Your task to perform on an android device: change the clock display to analog Image 0: 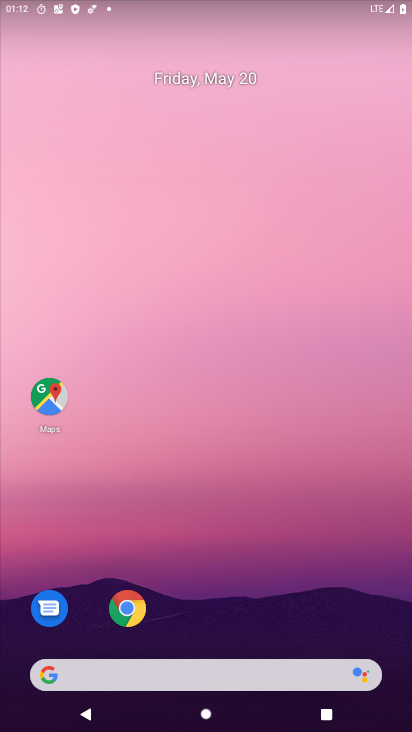
Step 0: drag from (309, 604) to (312, 209)
Your task to perform on an android device: change the clock display to analog Image 1: 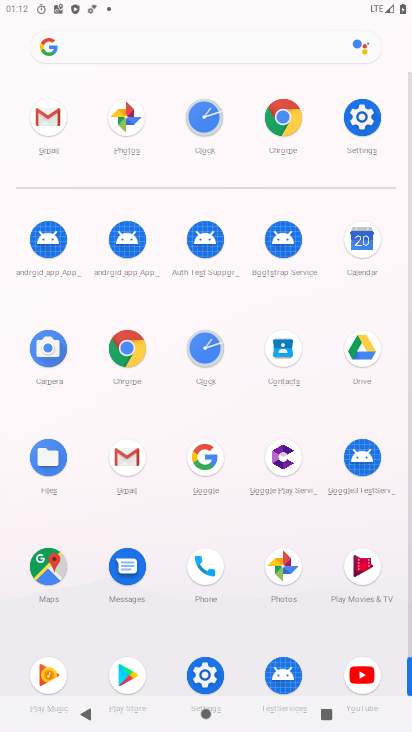
Step 1: click (193, 355)
Your task to perform on an android device: change the clock display to analog Image 2: 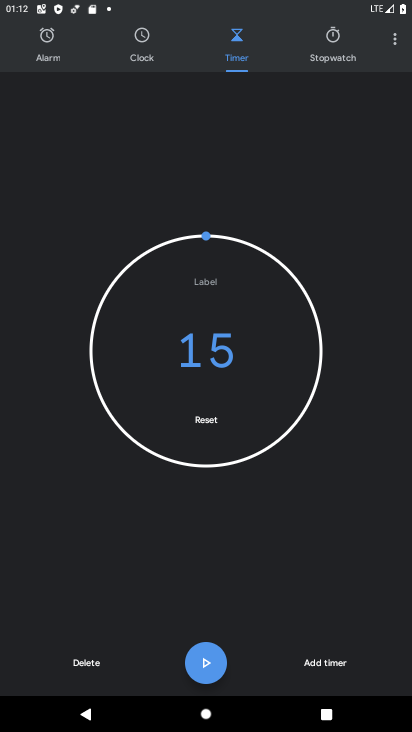
Step 2: click (392, 46)
Your task to perform on an android device: change the clock display to analog Image 3: 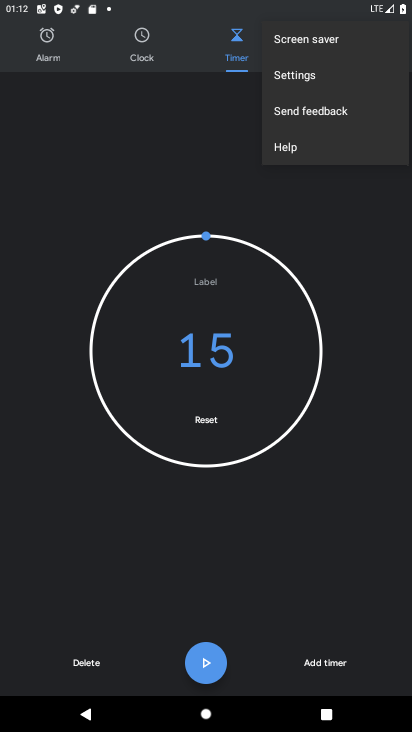
Step 3: click (270, 75)
Your task to perform on an android device: change the clock display to analog Image 4: 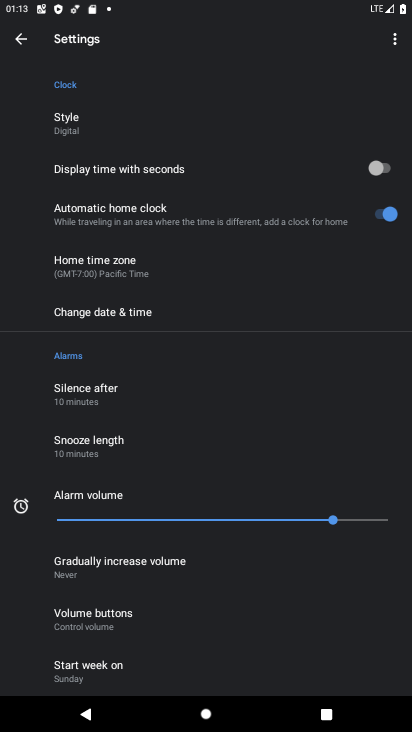
Step 4: click (103, 125)
Your task to perform on an android device: change the clock display to analog Image 5: 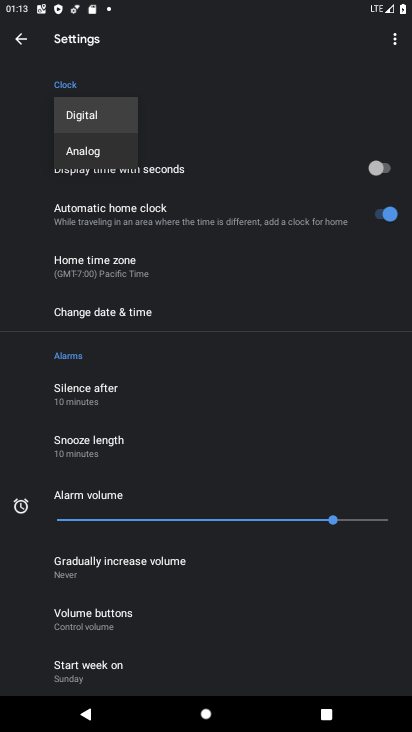
Step 5: click (110, 153)
Your task to perform on an android device: change the clock display to analog Image 6: 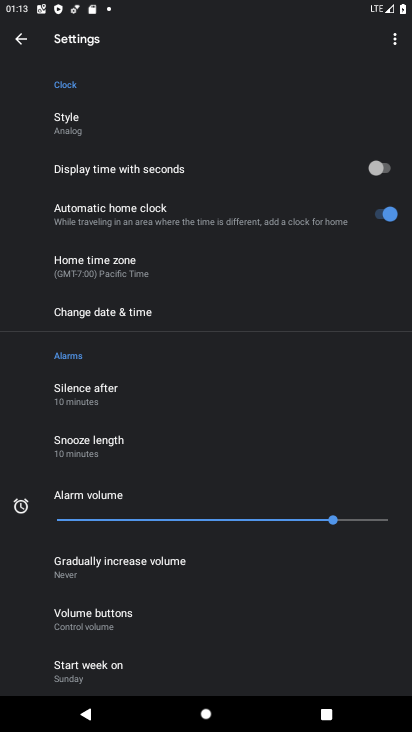
Step 6: task complete